Your task to perform on an android device: Do I have any events tomorrow? Image 0: 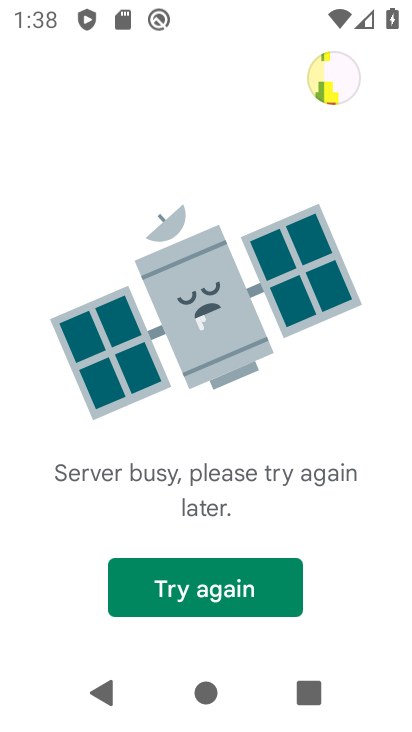
Step 0: press home button
Your task to perform on an android device: Do I have any events tomorrow? Image 1: 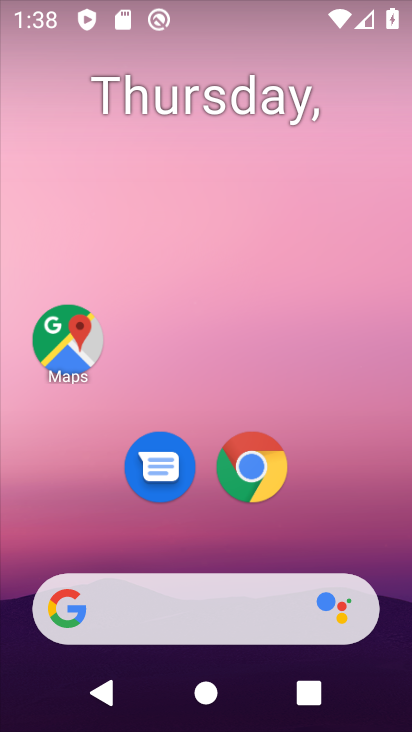
Step 1: drag from (357, 510) to (312, 192)
Your task to perform on an android device: Do I have any events tomorrow? Image 2: 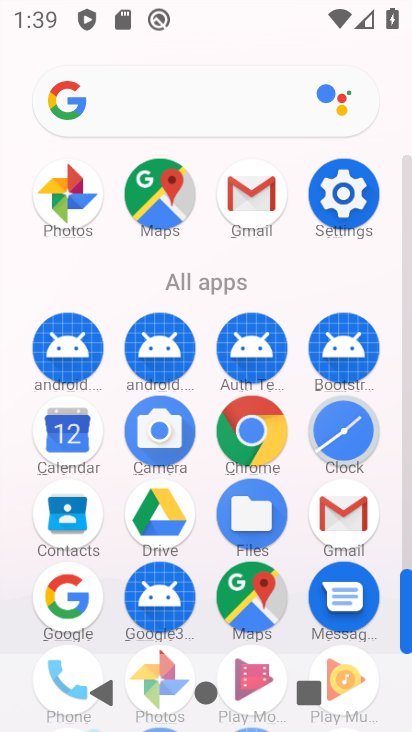
Step 2: click (72, 437)
Your task to perform on an android device: Do I have any events tomorrow? Image 3: 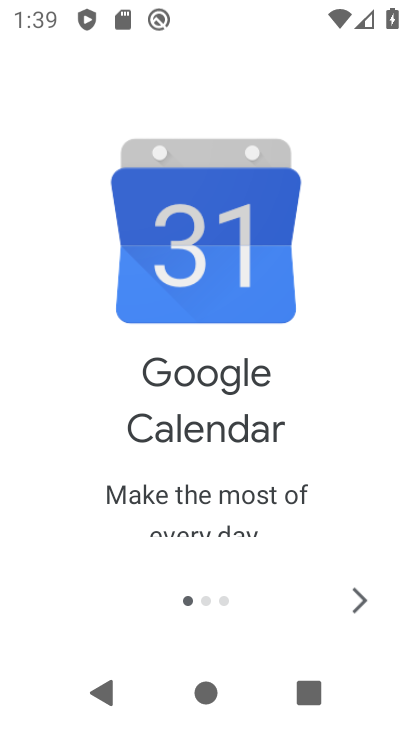
Step 3: click (369, 603)
Your task to perform on an android device: Do I have any events tomorrow? Image 4: 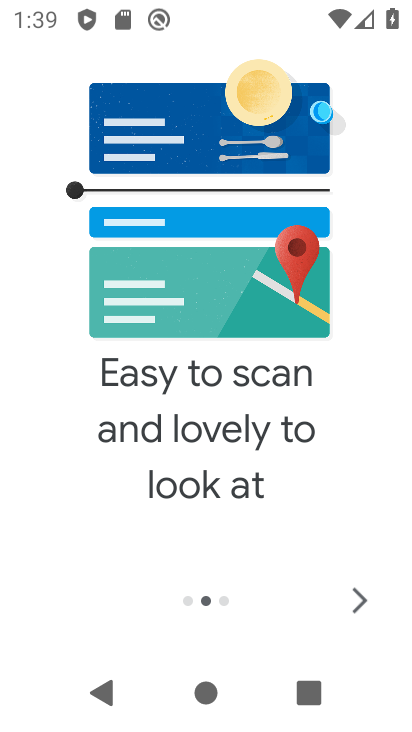
Step 4: click (369, 603)
Your task to perform on an android device: Do I have any events tomorrow? Image 5: 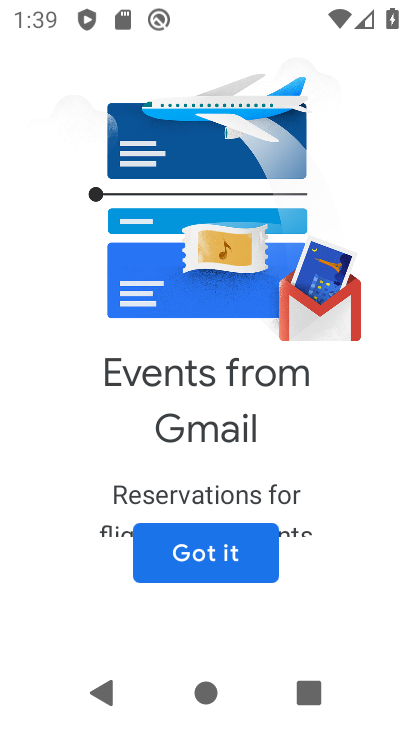
Step 5: click (219, 570)
Your task to perform on an android device: Do I have any events tomorrow? Image 6: 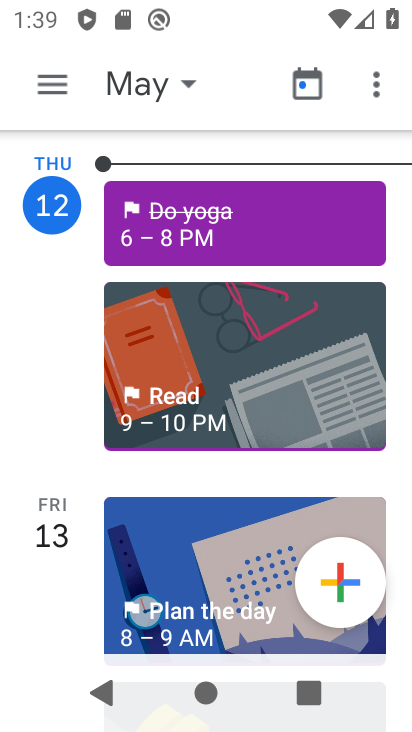
Step 6: click (59, 78)
Your task to perform on an android device: Do I have any events tomorrow? Image 7: 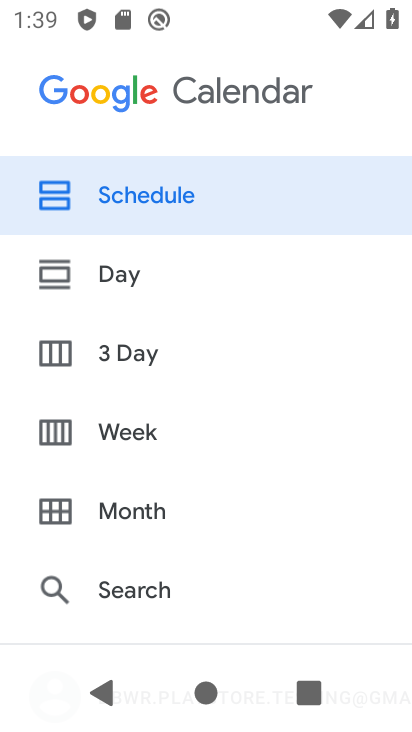
Step 7: click (132, 272)
Your task to perform on an android device: Do I have any events tomorrow? Image 8: 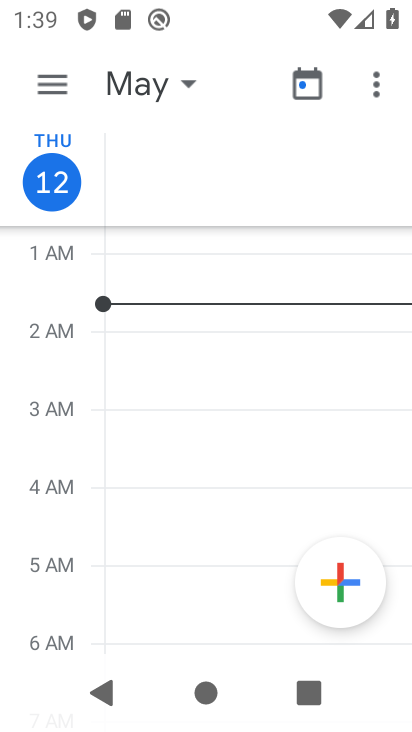
Step 8: click (172, 94)
Your task to perform on an android device: Do I have any events tomorrow? Image 9: 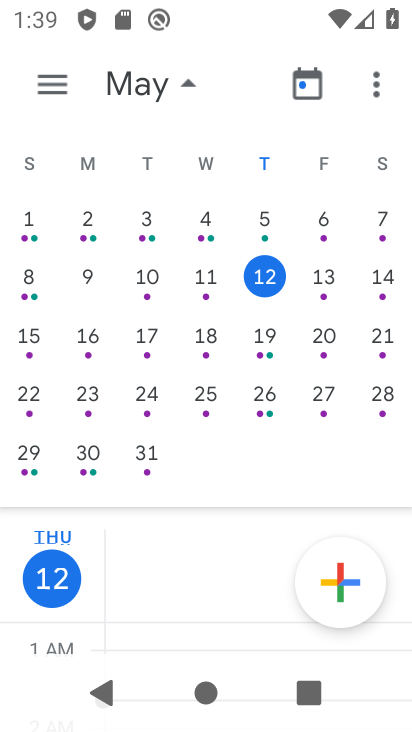
Step 9: click (325, 285)
Your task to perform on an android device: Do I have any events tomorrow? Image 10: 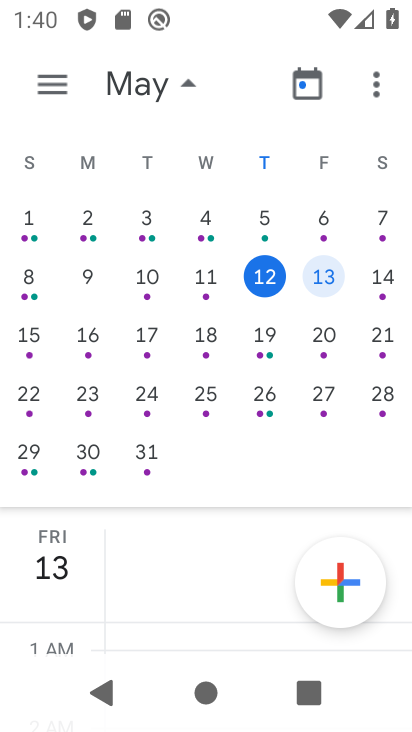
Step 10: task complete